Your task to perform on an android device: Open location settings Image 0: 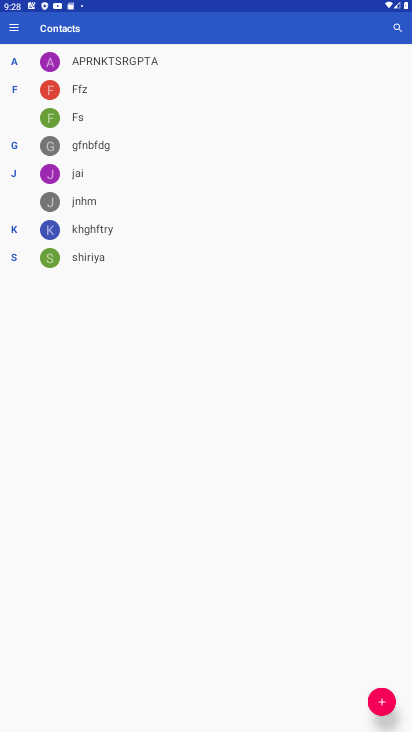
Step 0: drag from (346, 13) to (388, 615)
Your task to perform on an android device: Open location settings Image 1: 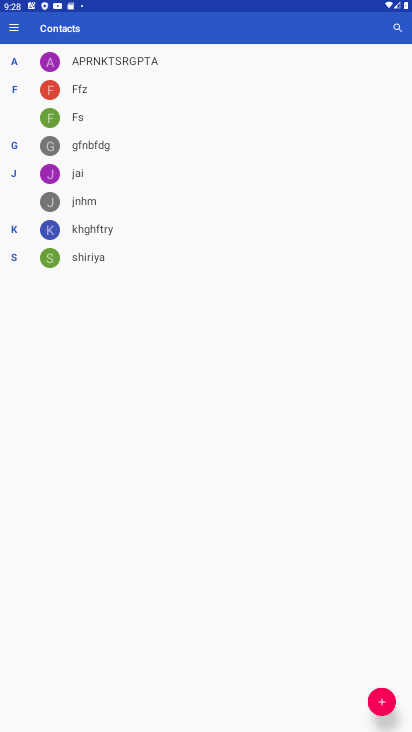
Step 1: drag from (119, 9) to (143, 560)
Your task to perform on an android device: Open location settings Image 2: 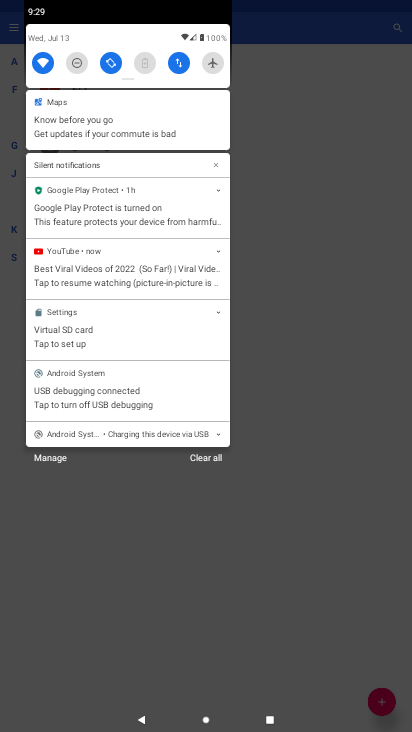
Step 2: drag from (102, 39) to (169, 602)
Your task to perform on an android device: Open location settings Image 3: 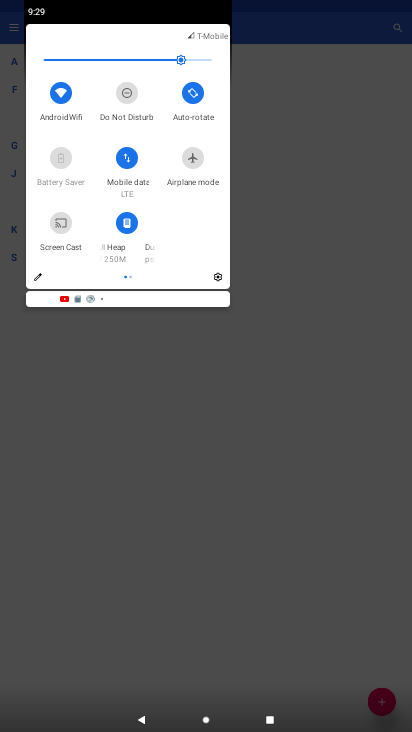
Step 3: click (221, 275)
Your task to perform on an android device: Open location settings Image 4: 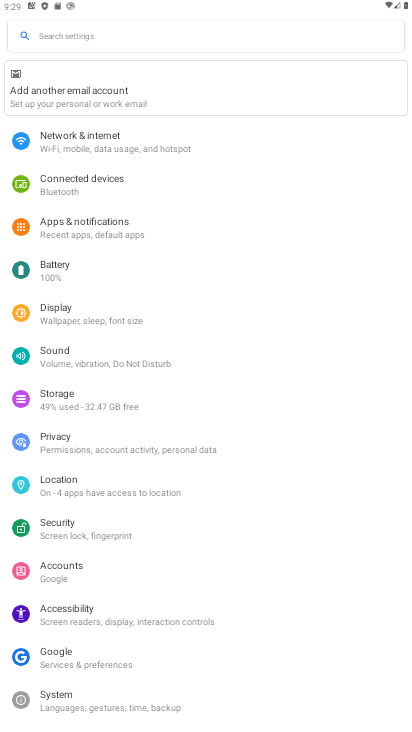
Step 4: click (145, 492)
Your task to perform on an android device: Open location settings Image 5: 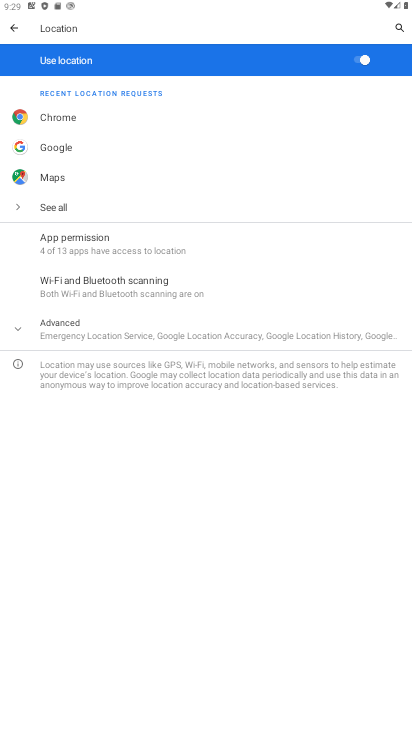
Step 5: task complete